Your task to perform on an android device: Open display settings Image 0: 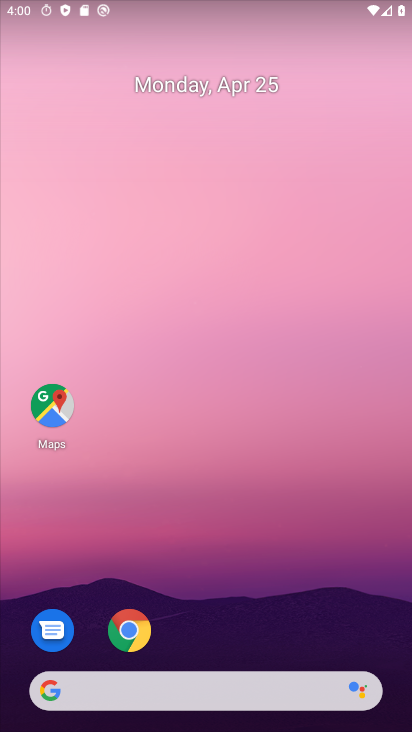
Step 0: drag from (326, 614) to (277, 105)
Your task to perform on an android device: Open display settings Image 1: 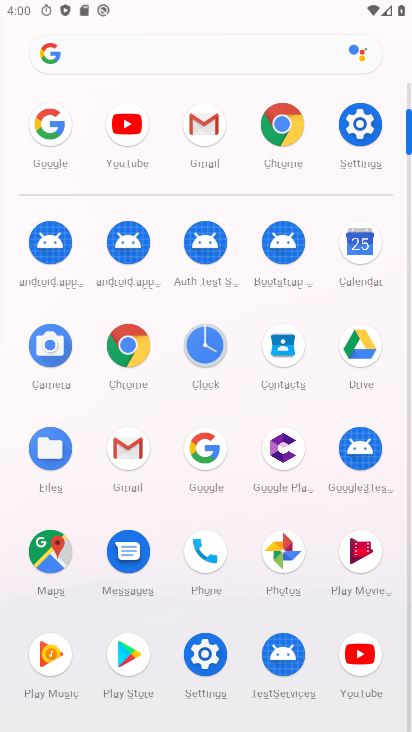
Step 1: click (369, 127)
Your task to perform on an android device: Open display settings Image 2: 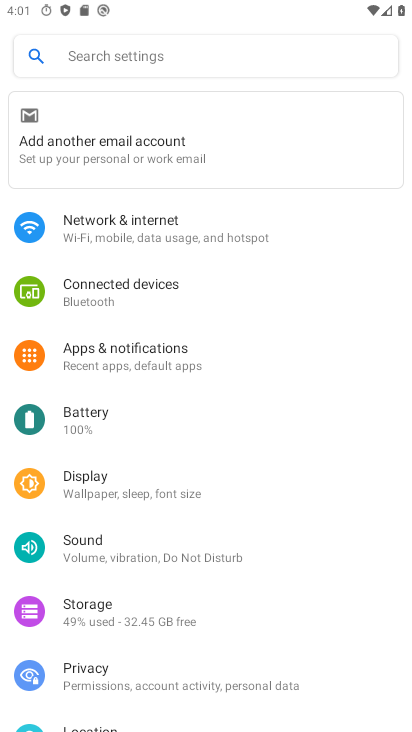
Step 2: click (161, 489)
Your task to perform on an android device: Open display settings Image 3: 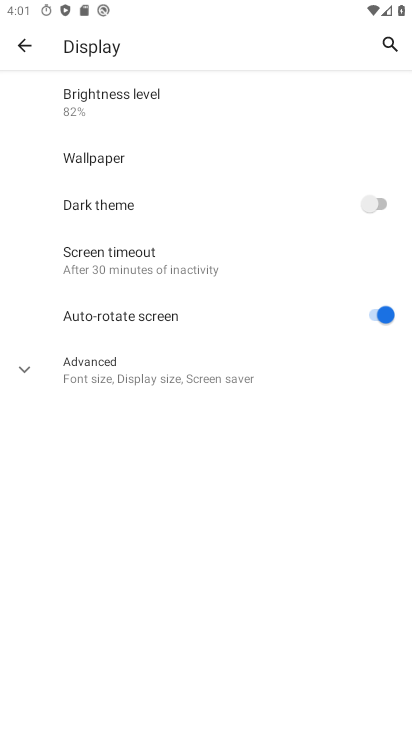
Step 3: task complete